Your task to perform on an android device: Go to Yahoo.com Image 0: 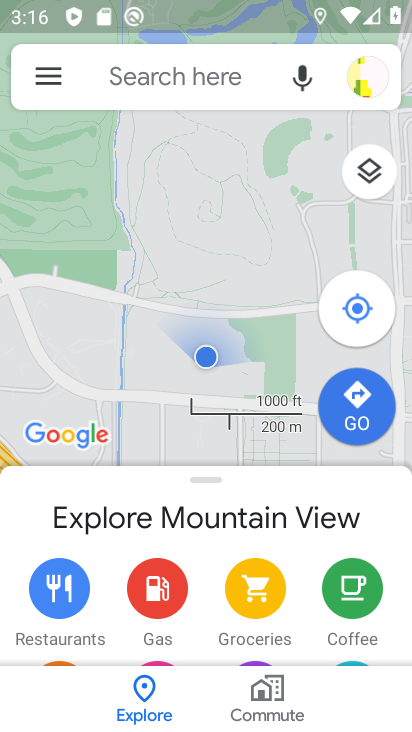
Step 0: press home button
Your task to perform on an android device: Go to Yahoo.com Image 1: 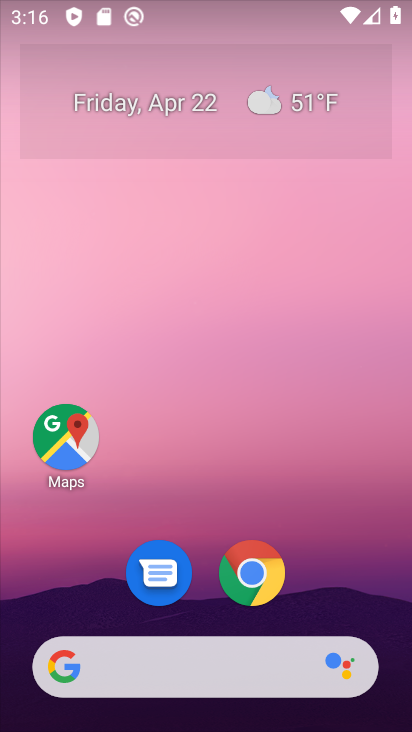
Step 1: click (267, 565)
Your task to perform on an android device: Go to Yahoo.com Image 2: 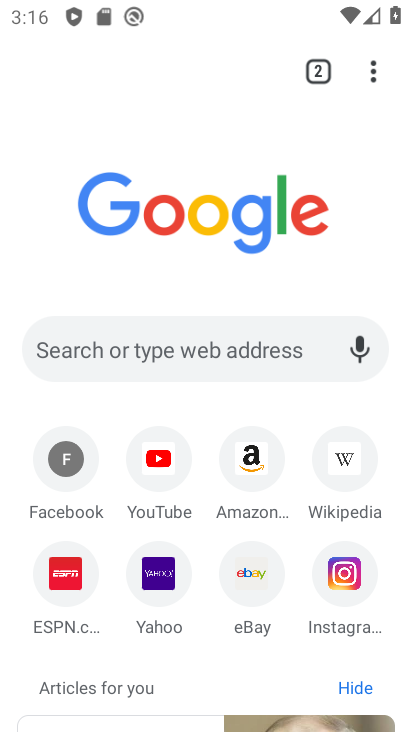
Step 2: click (178, 582)
Your task to perform on an android device: Go to Yahoo.com Image 3: 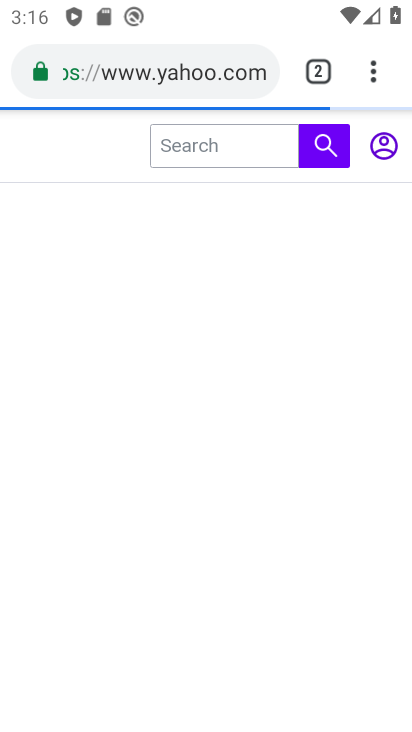
Step 3: task complete